Your task to perform on an android device: Go to Yahoo.com Image 0: 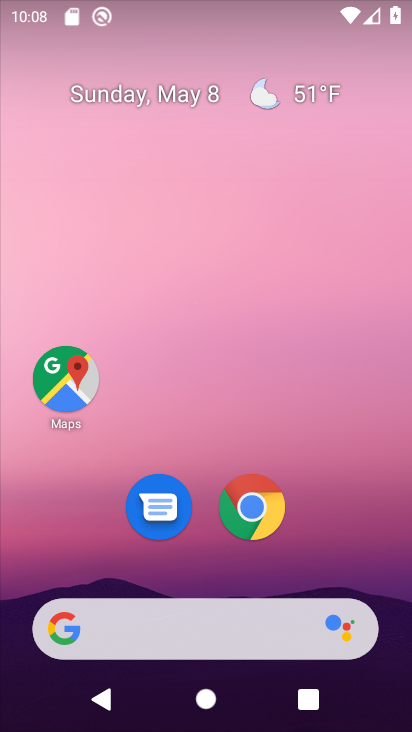
Step 0: click (242, 512)
Your task to perform on an android device: Go to Yahoo.com Image 1: 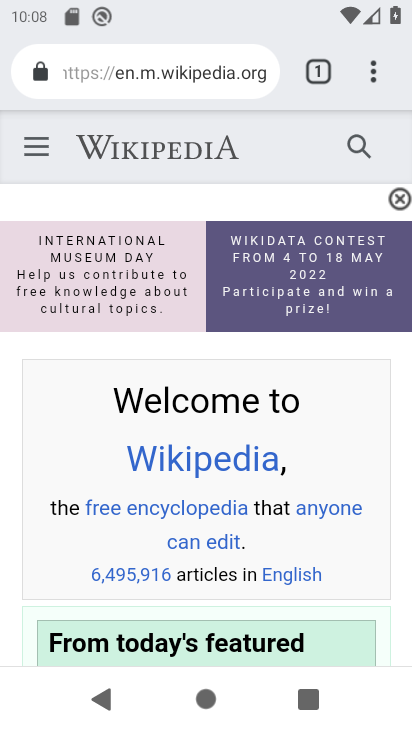
Step 1: click (323, 66)
Your task to perform on an android device: Go to Yahoo.com Image 2: 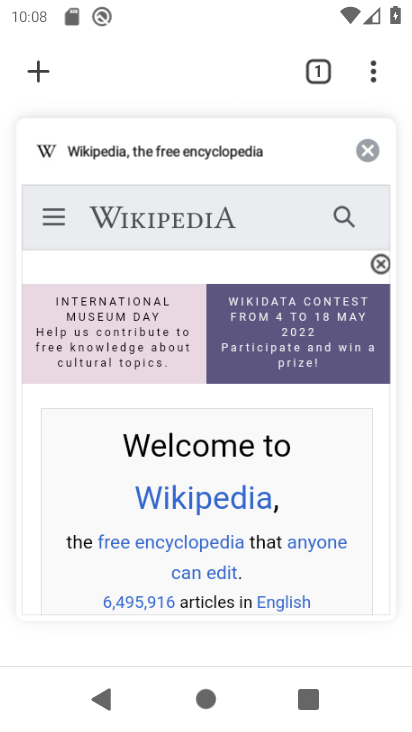
Step 2: click (365, 147)
Your task to perform on an android device: Go to Yahoo.com Image 3: 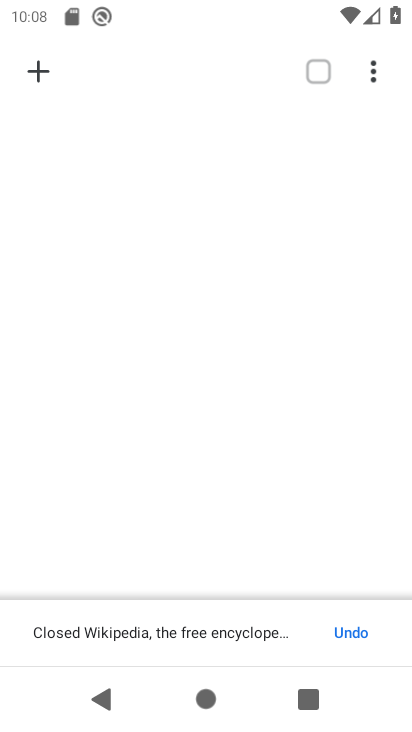
Step 3: click (34, 74)
Your task to perform on an android device: Go to Yahoo.com Image 4: 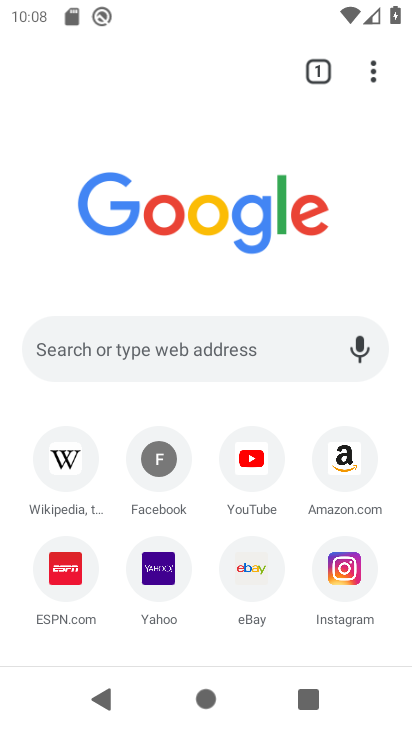
Step 4: click (158, 560)
Your task to perform on an android device: Go to Yahoo.com Image 5: 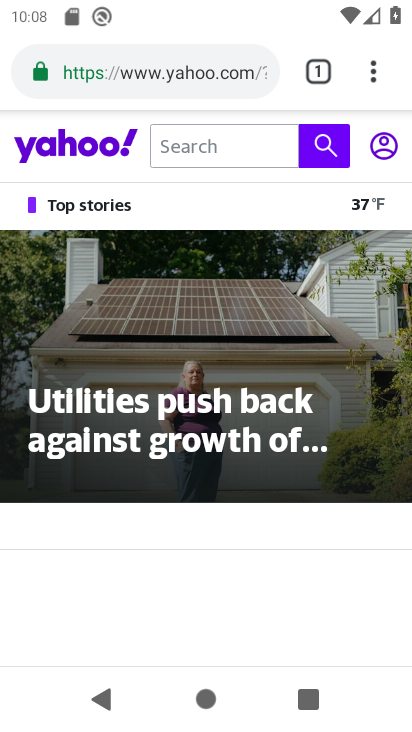
Step 5: task complete